Your task to perform on an android device: Open the stopwatch Image 0: 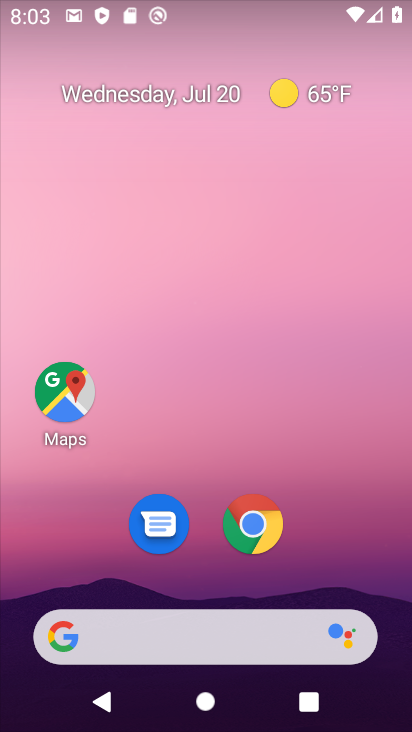
Step 0: drag from (352, 504) to (300, 9)
Your task to perform on an android device: Open the stopwatch Image 1: 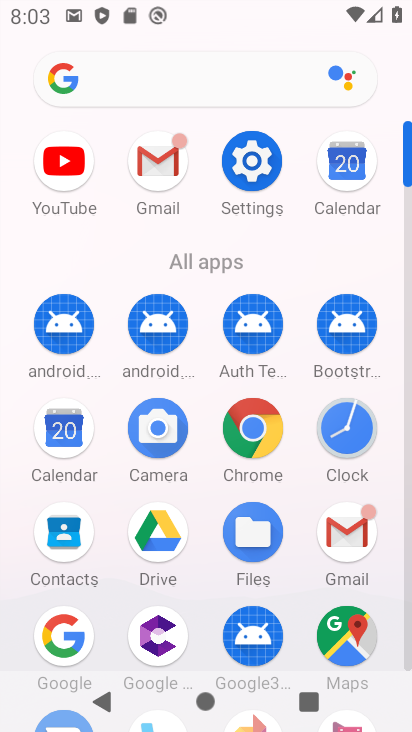
Step 1: click (342, 413)
Your task to perform on an android device: Open the stopwatch Image 2: 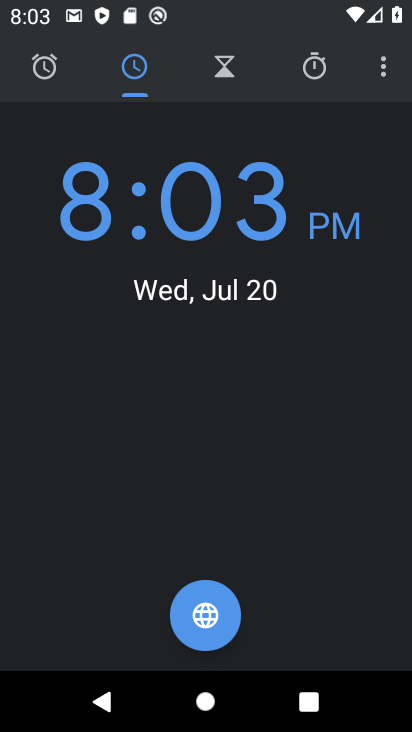
Step 2: click (311, 72)
Your task to perform on an android device: Open the stopwatch Image 3: 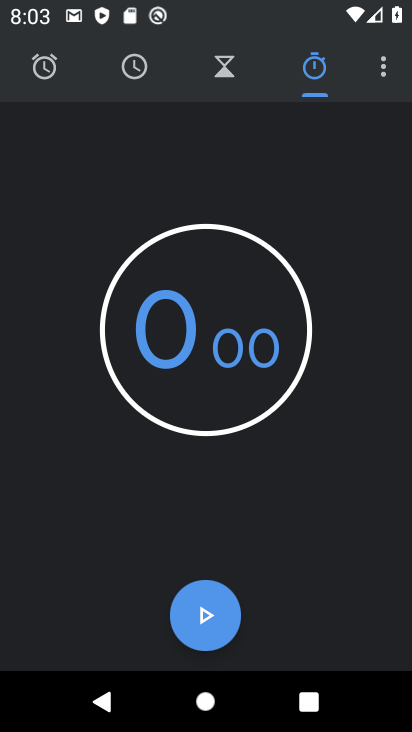
Step 3: task complete